Your task to perform on an android device: Go to ESPN.com Image 0: 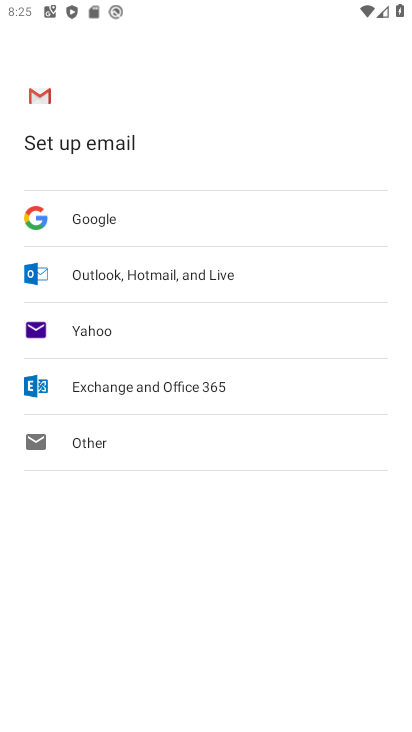
Step 0: press home button
Your task to perform on an android device: Go to ESPN.com Image 1: 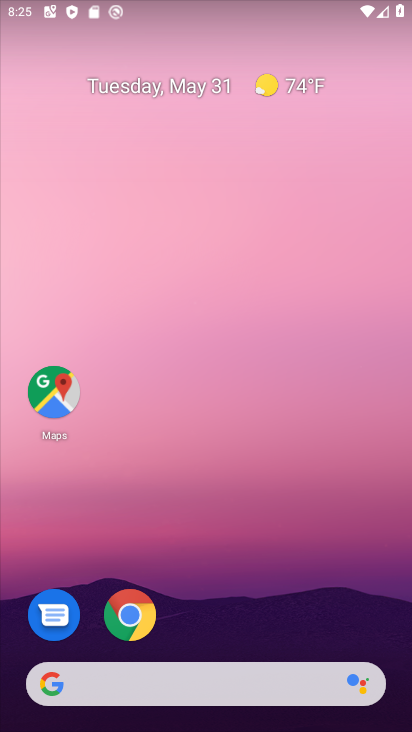
Step 1: click (126, 624)
Your task to perform on an android device: Go to ESPN.com Image 2: 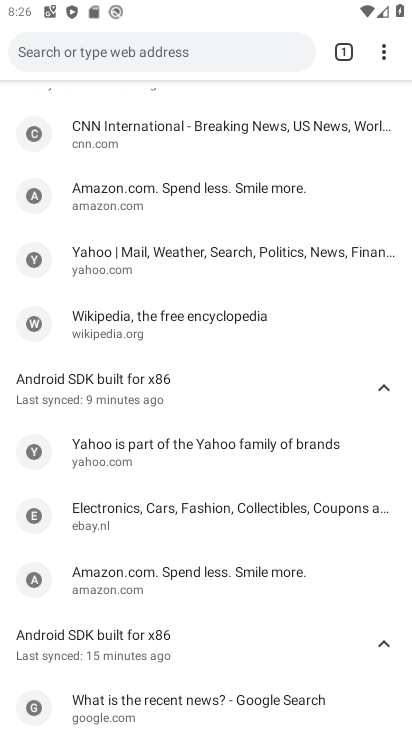
Step 2: click (129, 55)
Your task to perform on an android device: Go to ESPN.com Image 3: 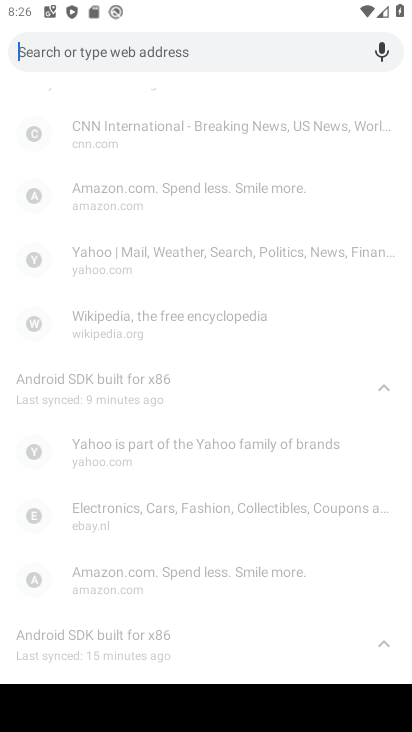
Step 3: type "ESPN.com"
Your task to perform on an android device: Go to ESPN.com Image 4: 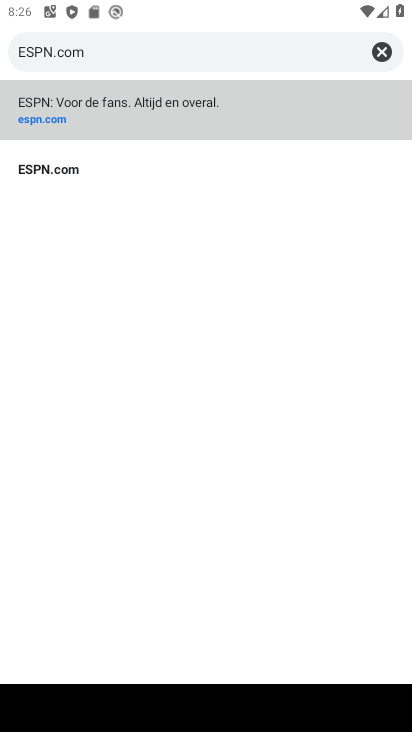
Step 4: click (187, 110)
Your task to perform on an android device: Go to ESPN.com Image 5: 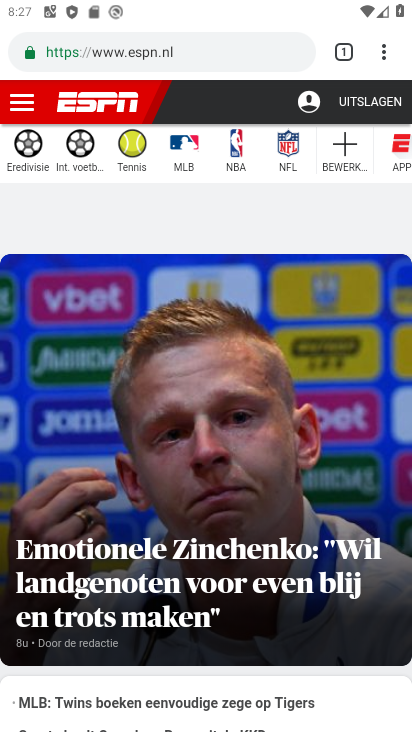
Step 5: task complete